Your task to perform on an android device: Go to Google maps Image 0: 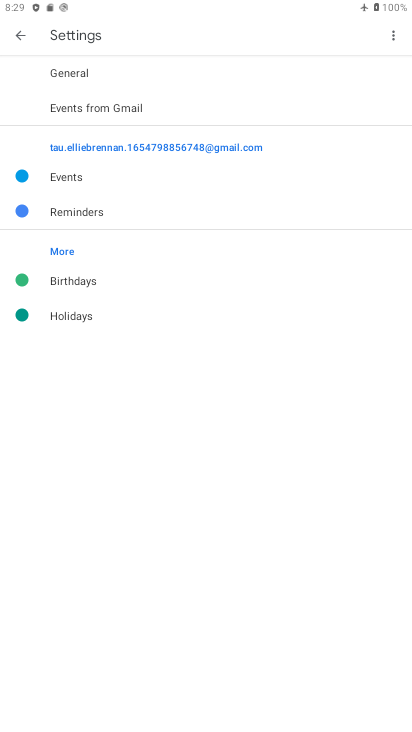
Step 0: press back button
Your task to perform on an android device: Go to Google maps Image 1: 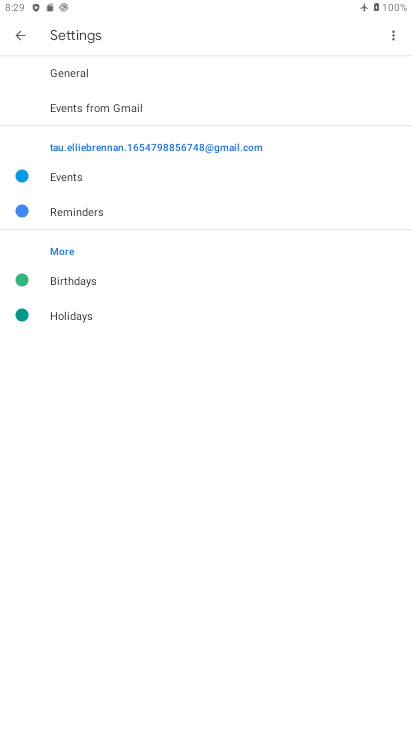
Step 1: press back button
Your task to perform on an android device: Go to Google maps Image 2: 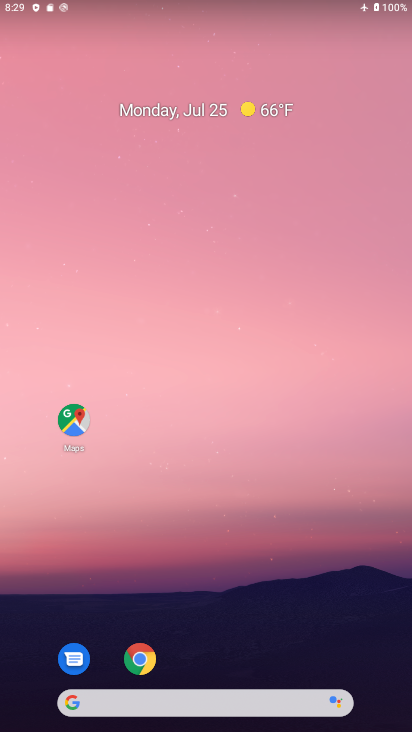
Step 2: drag from (145, 526) to (72, 208)
Your task to perform on an android device: Go to Google maps Image 3: 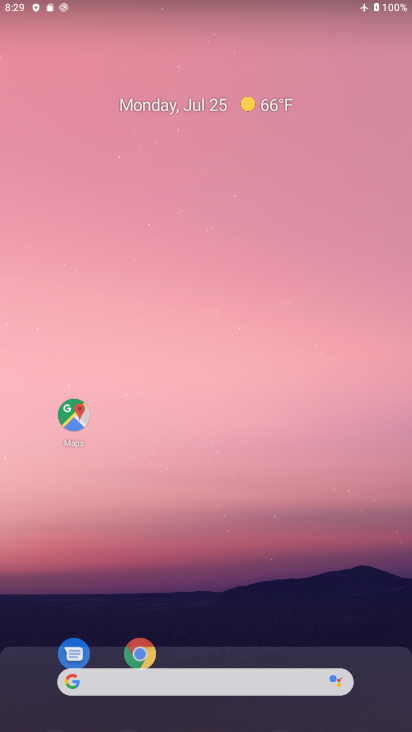
Step 3: drag from (164, 458) to (120, 81)
Your task to perform on an android device: Go to Google maps Image 4: 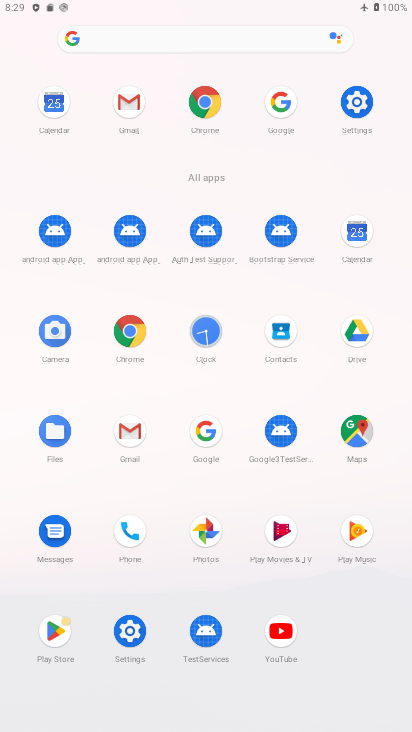
Step 4: drag from (247, 481) to (193, 191)
Your task to perform on an android device: Go to Google maps Image 5: 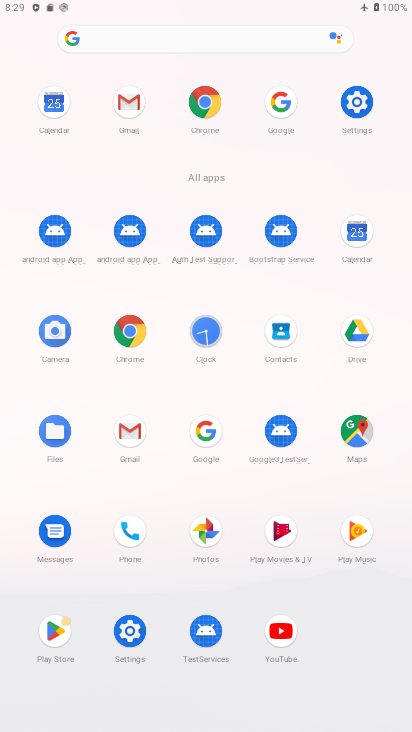
Step 5: click (362, 429)
Your task to perform on an android device: Go to Google maps Image 6: 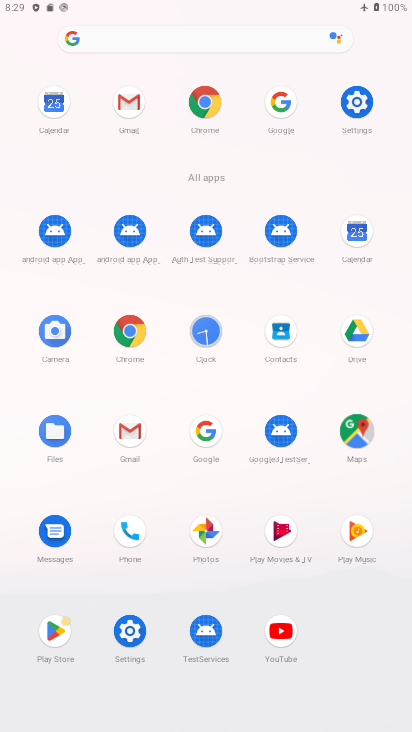
Step 6: click (359, 427)
Your task to perform on an android device: Go to Google maps Image 7: 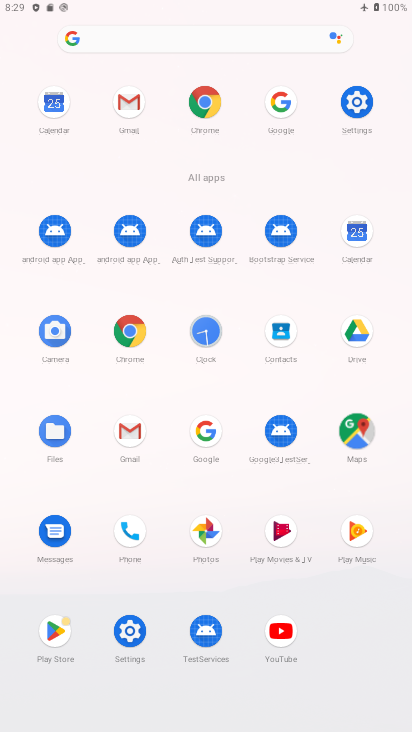
Step 7: click (358, 427)
Your task to perform on an android device: Go to Google maps Image 8: 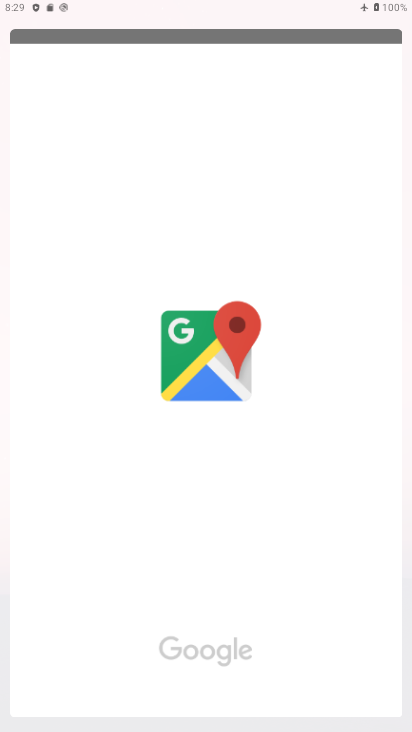
Step 8: click (357, 426)
Your task to perform on an android device: Go to Google maps Image 9: 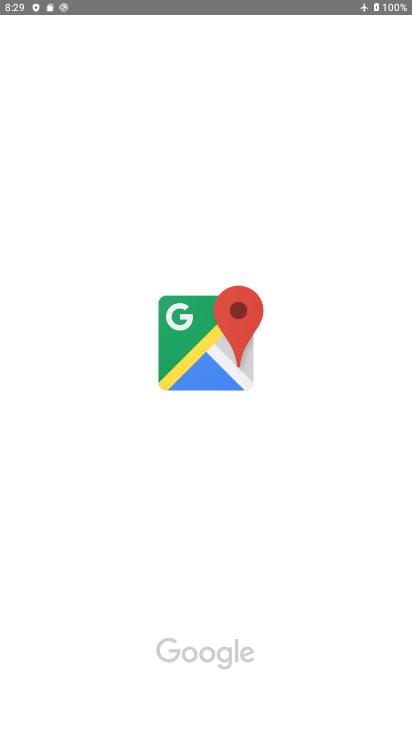
Step 9: click (357, 426)
Your task to perform on an android device: Go to Google maps Image 10: 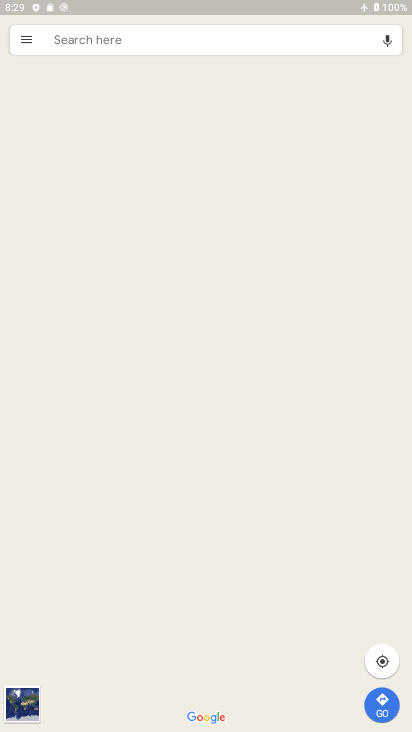
Step 10: task complete